Your task to perform on an android device: allow cookies in the chrome app Image 0: 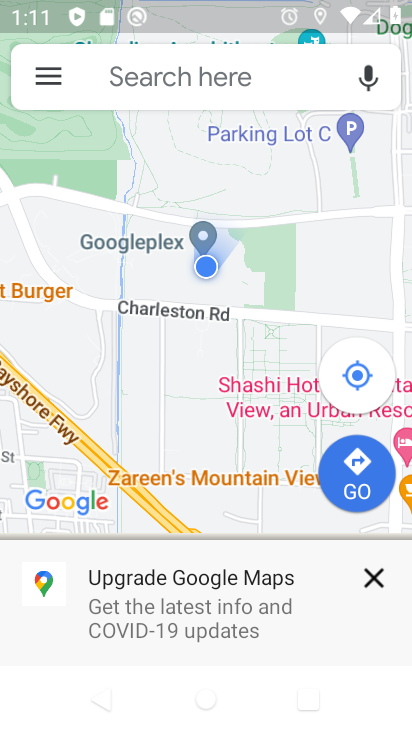
Step 0: press home button
Your task to perform on an android device: allow cookies in the chrome app Image 1: 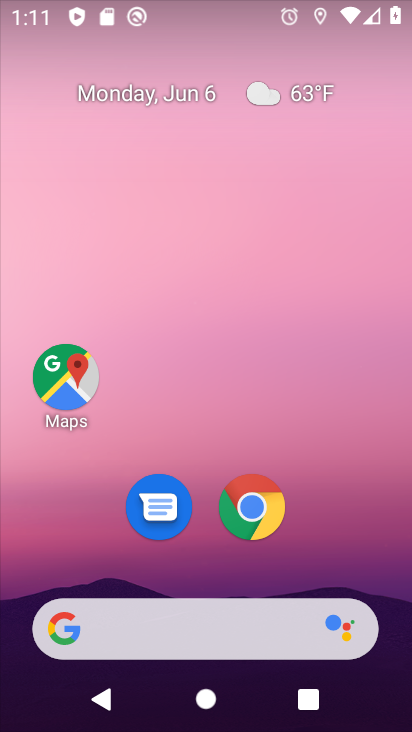
Step 1: click (247, 508)
Your task to perform on an android device: allow cookies in the chrome app Image 2: 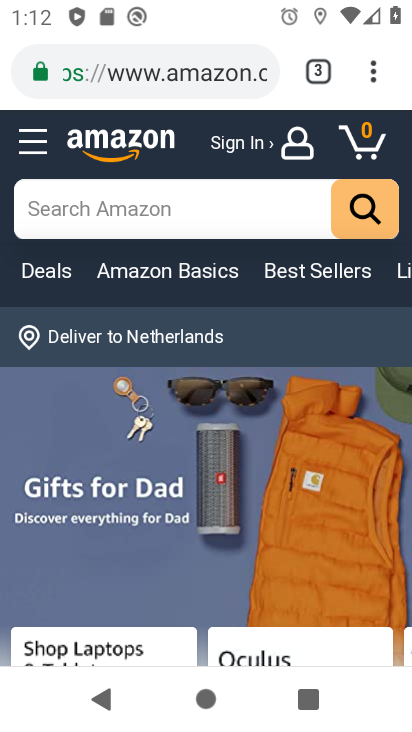
Step 2: click (375, 71)
Your task to perform on an android device: allow cookies in the chrome app Image 3: 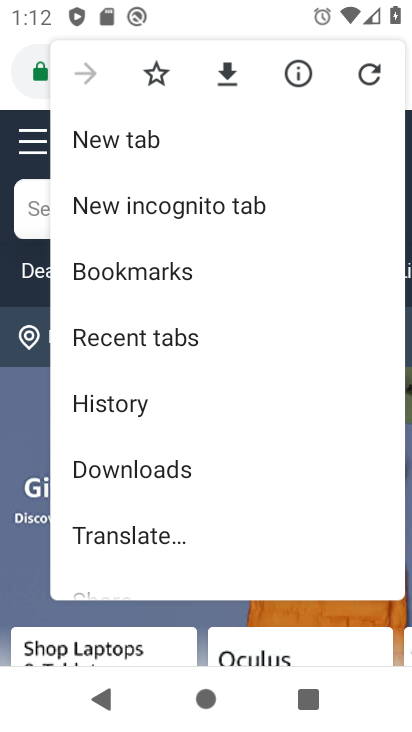
Step 3: drag from (211, 445) to (273, 120)
Your task to perform on an android device: allow cookies in the chrome app Image 4: 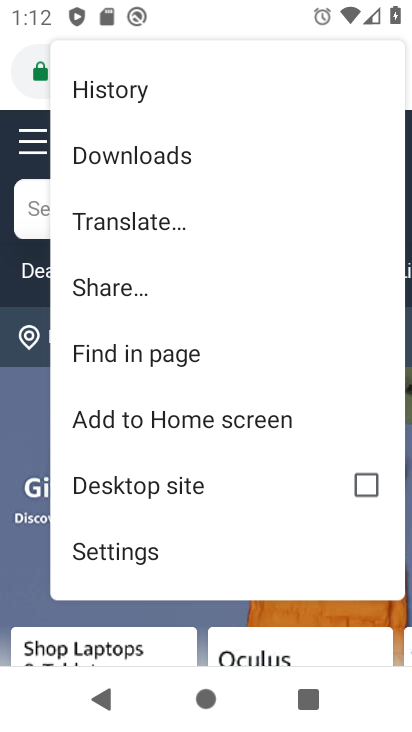
Step 4: click (151, 544)
Your task to perform on an android device: allow cookies in the chrome app Image 5: 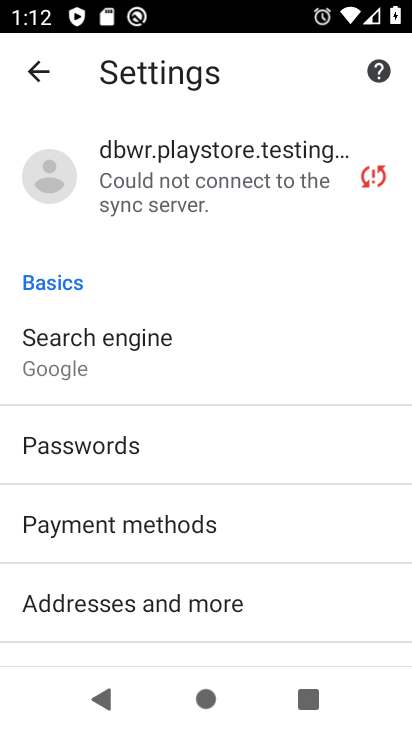
Step 5: drag from (205, 524) to (245, 116)
Your task to perform on an android device: allow cookies in the chrome app Image 6: 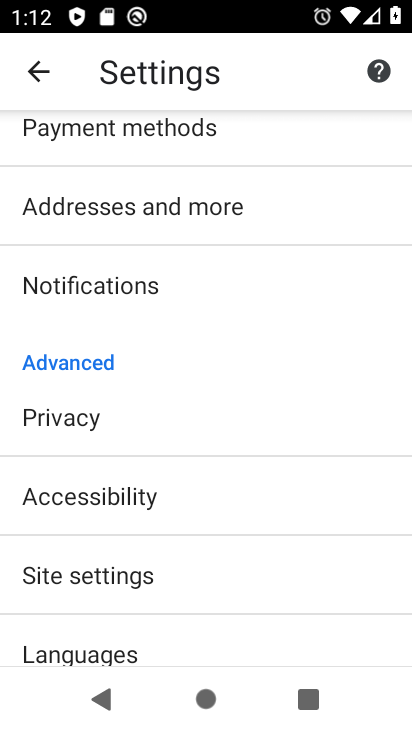
Step 6: click (180, 572)
Your task to perform on an android device: allow cookies in the chrome app Image 7: 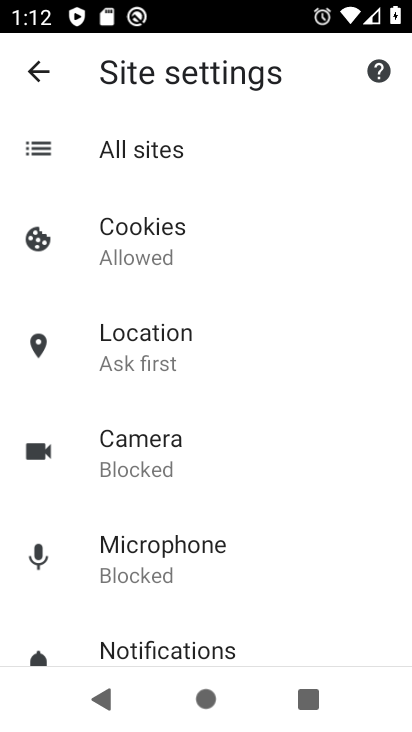
Step 7: click (250, 253)
Your task to perform on an android device: allow cookies in the chrome app Image 8: 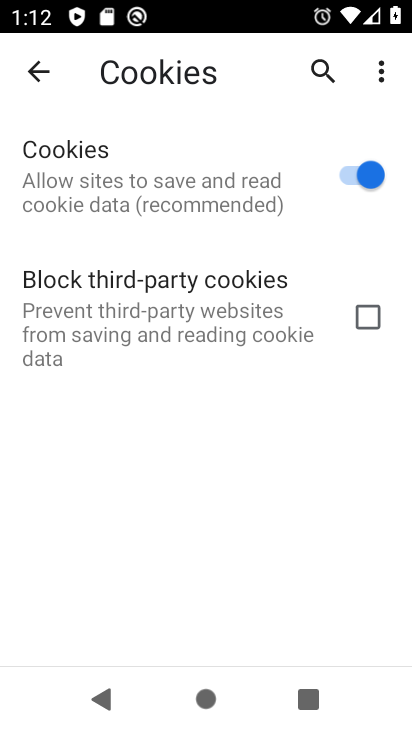
Step 8: task complete